Your task to perform on an android device: Toggle the flashlight Image 0: 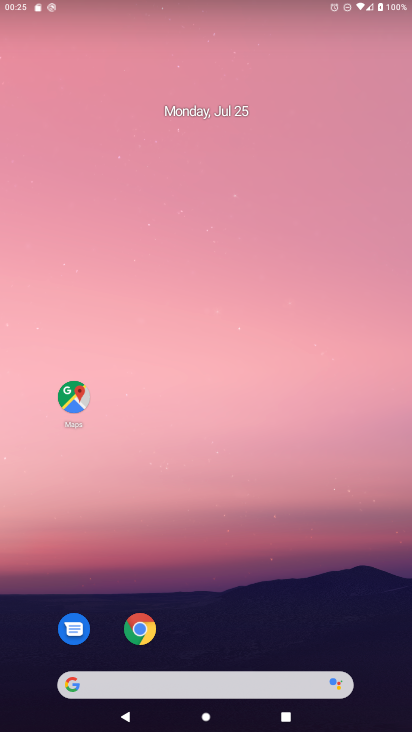
Step 0: drag from (196, 581) to (253, 198)
Your task to perform on an android device: Toggle the flashlight Image 1: 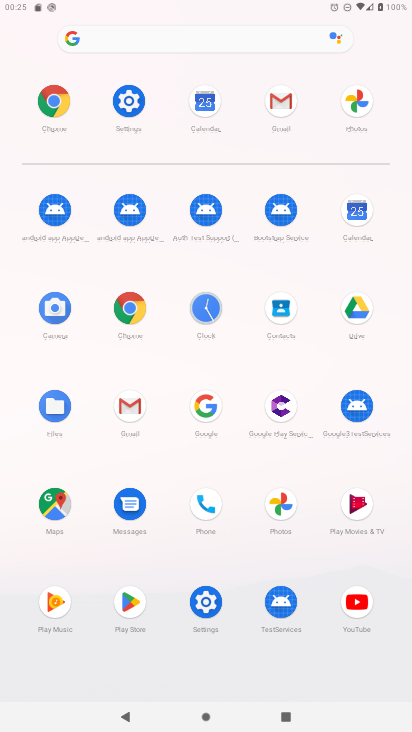
Step 1: click (198, 597)
Your task to perform on an android device: Toggle the flashlight Image 2: 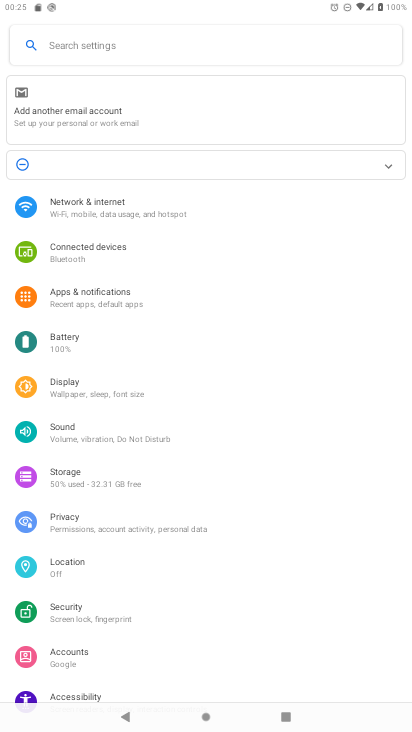
Step 2: click (76, 53)
Your task to perform on an android device: Toggle the flashlight Image 3: 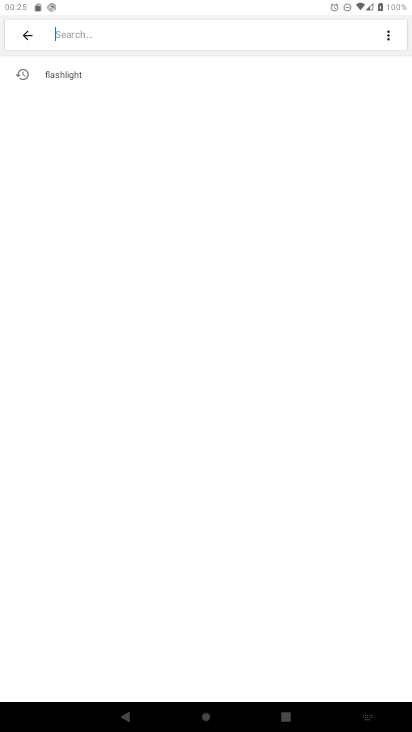
Step 3: click (190, 93)
Your task to perform on an android device: Toggle the flashlight Image 4: 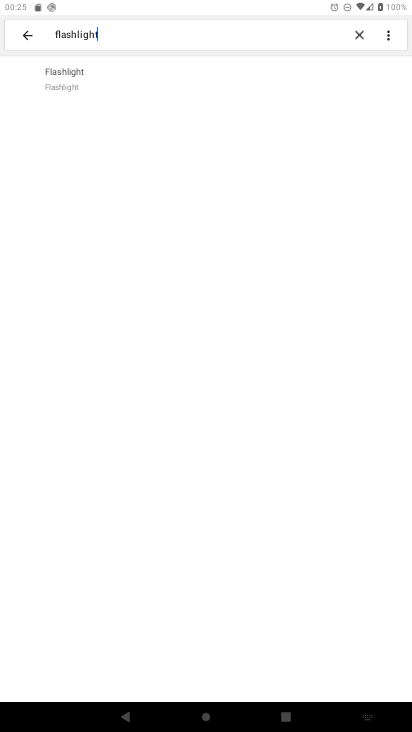
Step 4: task complete